Your task to perform on an android device: Go to location settings Image 0: 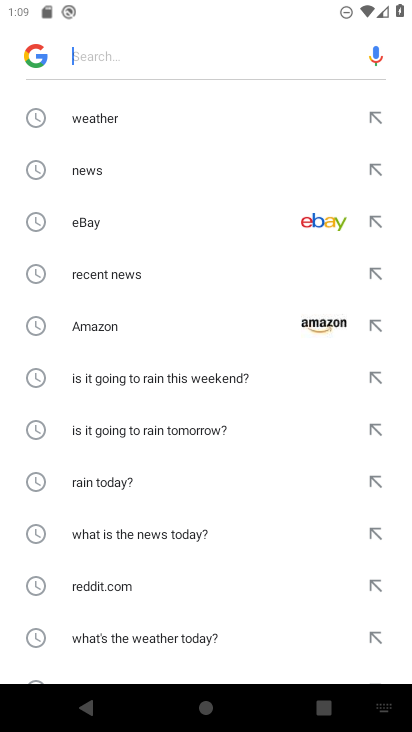
Step 0: press home button
Your task to perform on an android device: Go to location settings Image 1: 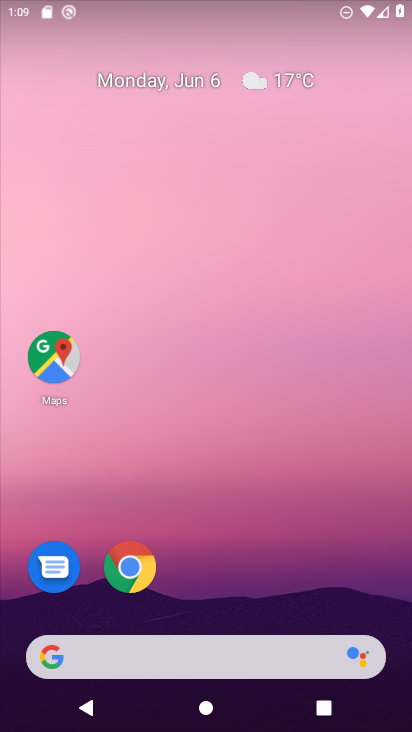
Step 1: drag from (228, 717) to (244, 0)
Your task to perform on an android device: Go to location settings Image 2: 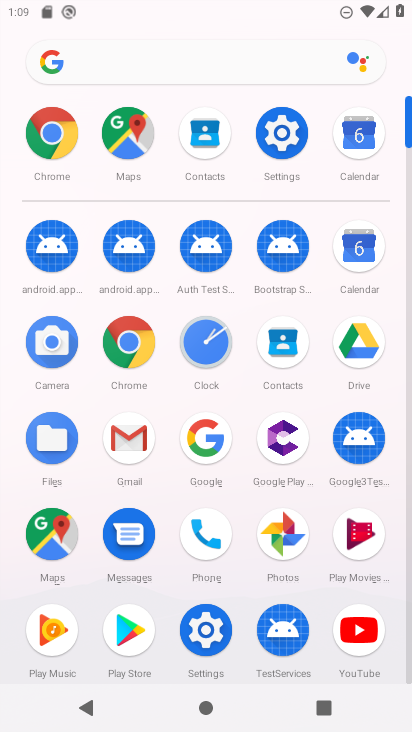
Step 2: click (283, 133)
Your task to perform on an android device: Go to location settings Image 3: 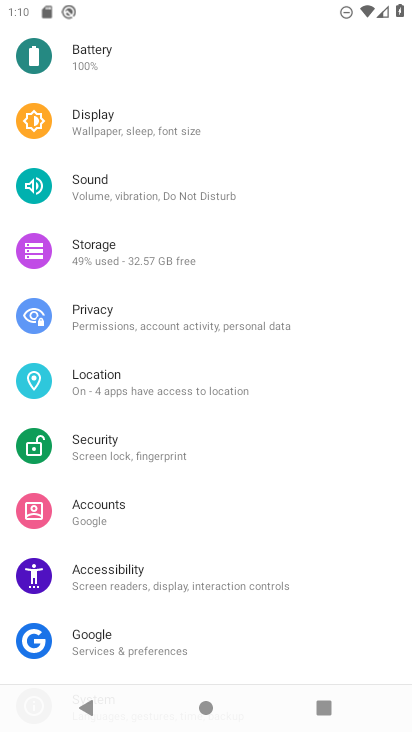
Step 3: click (97, 379)
Your task to perform on an android device: Go to location settings Image 4: 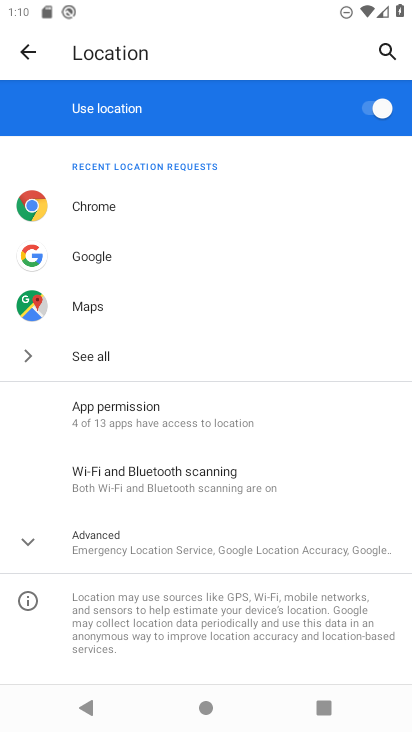
Step 4: task complete